Your task to perform on an android device: Go to internet settings Image 0: 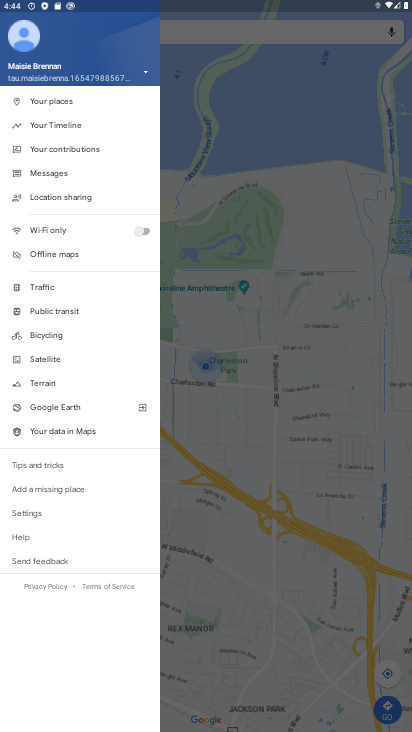
Step 0: press back button
Your task to perform on an android device: Go to internet settings Image 1: 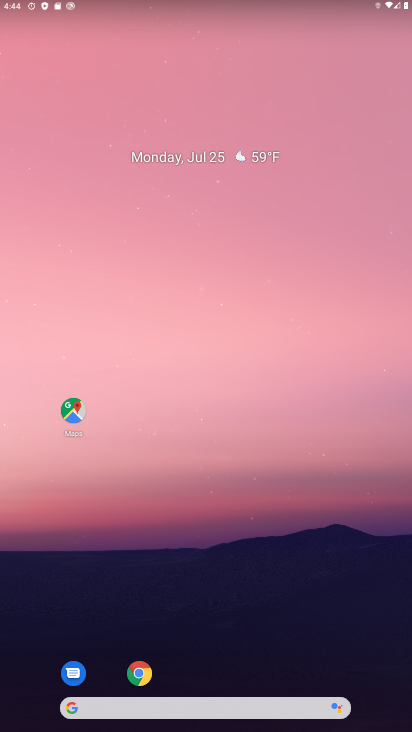
Step 1: press back button
Your task to perform on an android device: Go to internet settings Image 2: 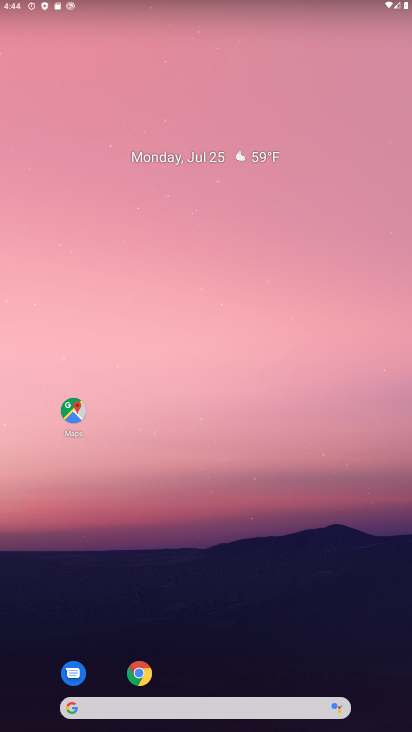
Step 2: drag from (201, 531) to (136, 63)
Your task to perform on an android device: Go to internet settings Image 3: 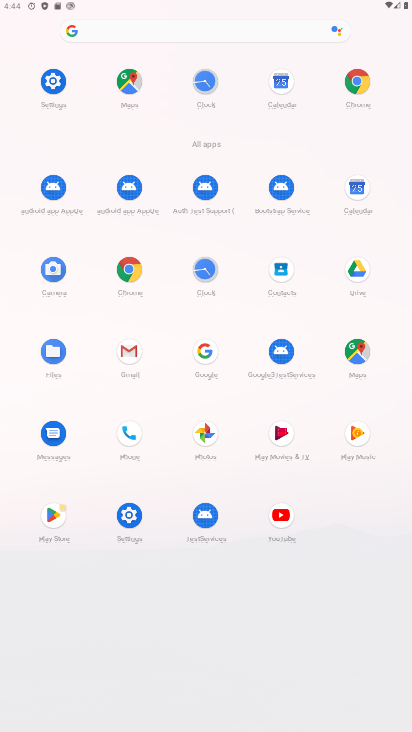
Step 3: click (54, 79)
Your task to perform on an android device: Go to internet settings Image 4: 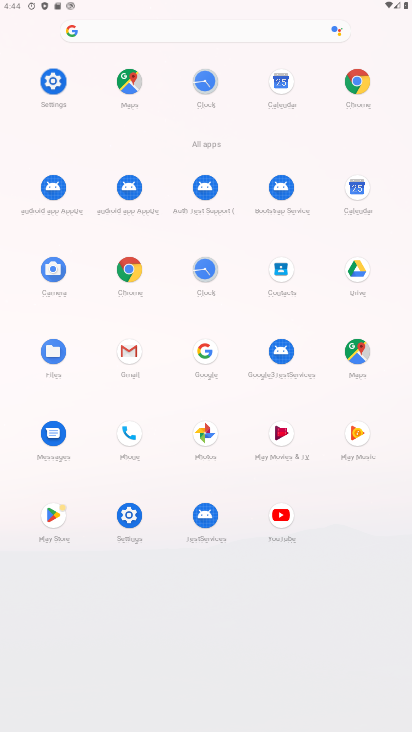
Step 4: click (54, 80)
Your task to perform on an android device: Go to internet settings Image 5: 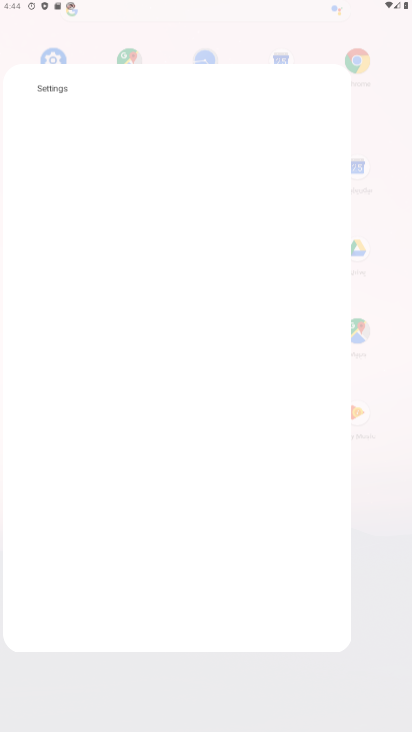
Step 5: click (53, 81)
Your task to perform on an android device: Go to internet settings Image 6: 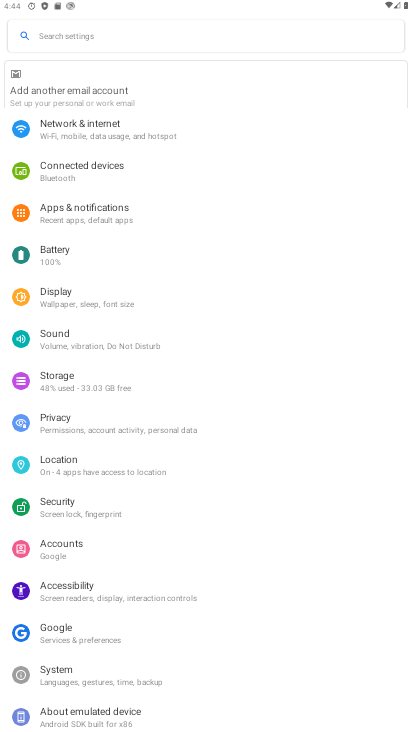
Step 6: click (55, 83)
Your task to perform on an android device: Go to internet settings Image 7: 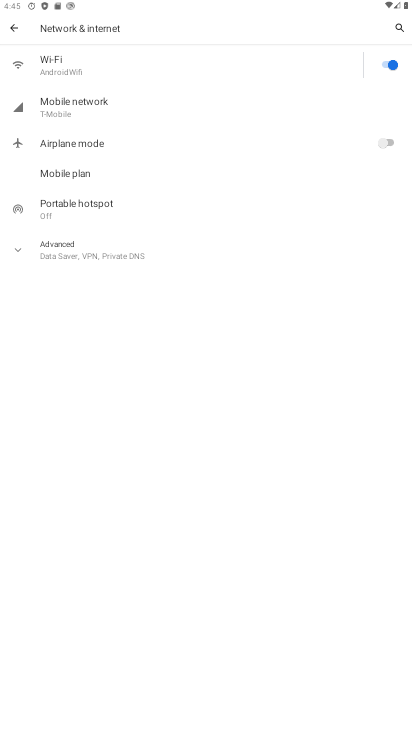
Step 7: task complete